Your task to perform on an android device: Go to Google maps Image 0: 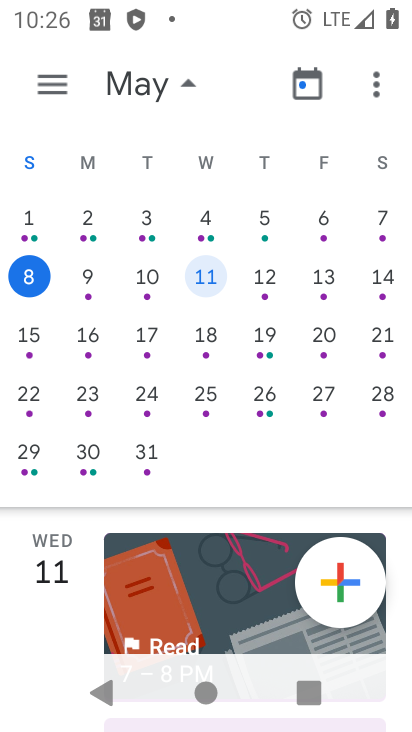
Step 0: press home button
Your task to perform on an android device: Go to Google maps Image 1: 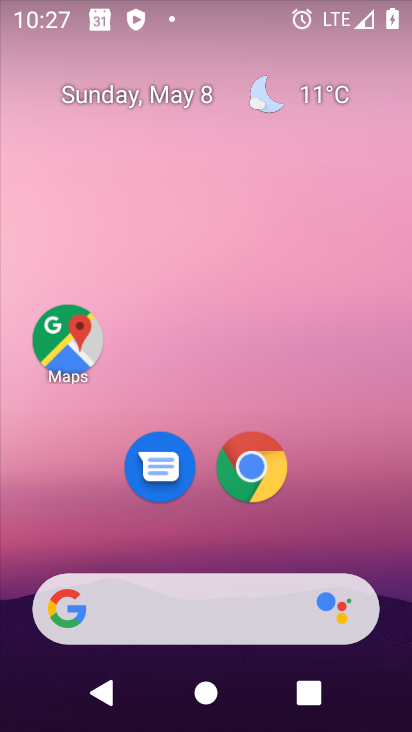
Step 1: click (62, 329)
Your task to perform on an android device: Go to Google maps Image 2: 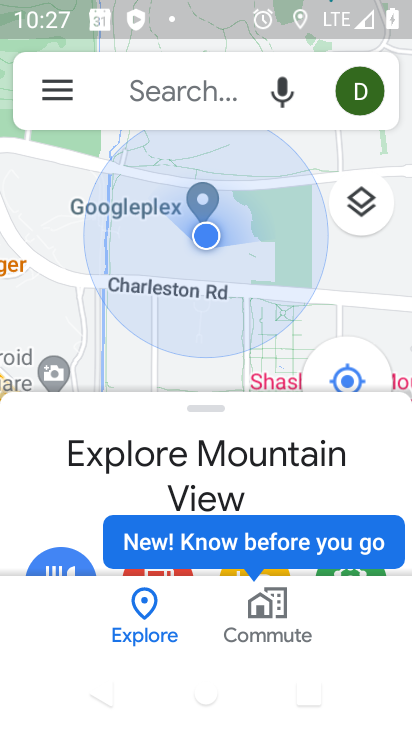
Step 2: task complete